Your task to perform on an android device: set the timer Image 0: 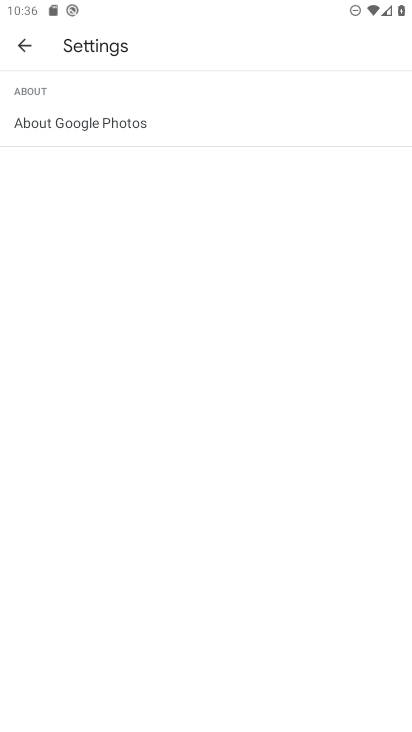
Step 0: press home button
Your task to perform on an android device: set the timer Image 1: 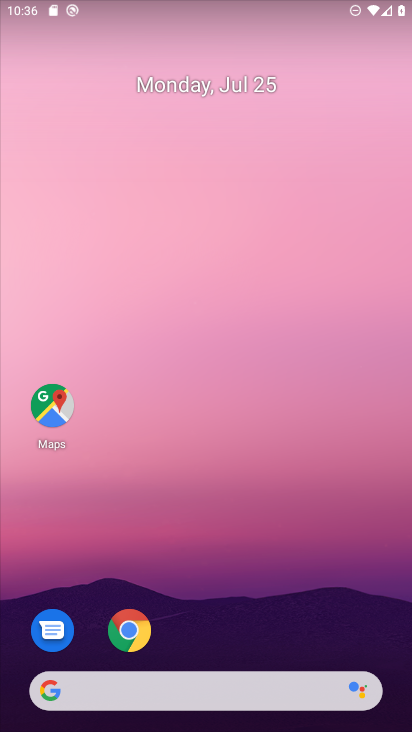
Step 1: drag from (328, 584) to (155, 4)
Your task to perform on an android device: set the timer Image 2: 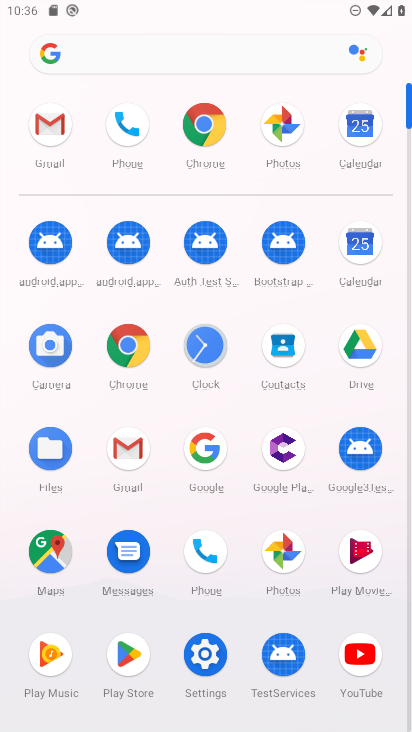
Step 2: click (207, 336)
Your task to perform on an android device: set the timer Image 3: 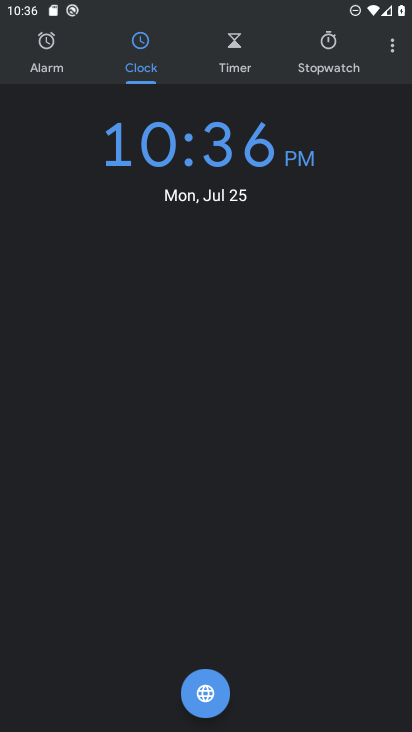
Step 3: click (225, 58)
Your task to perform on an android device: set the timer Image 4: 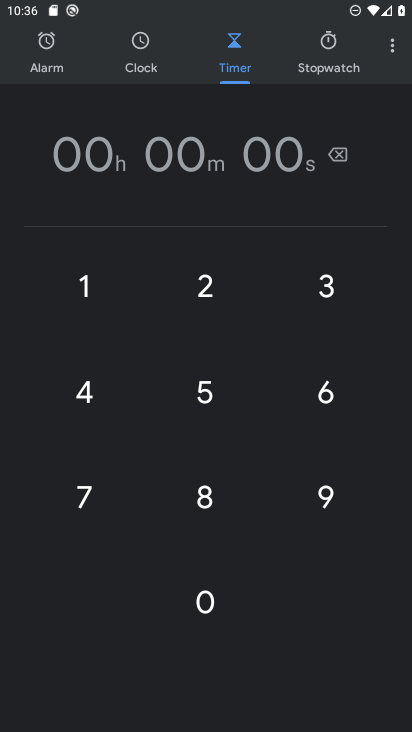
Step 4: click (179, 384)
Your task to perform on an android device: set the timer Image 5: 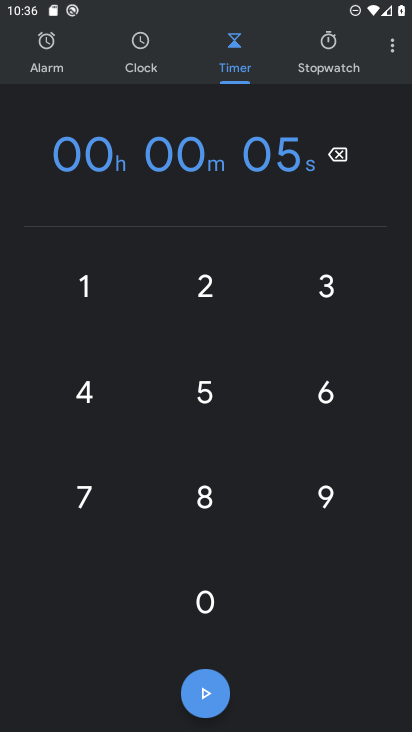
Step 5: task complete